Your task to perform on an android device: Go to notification settings Image 0: 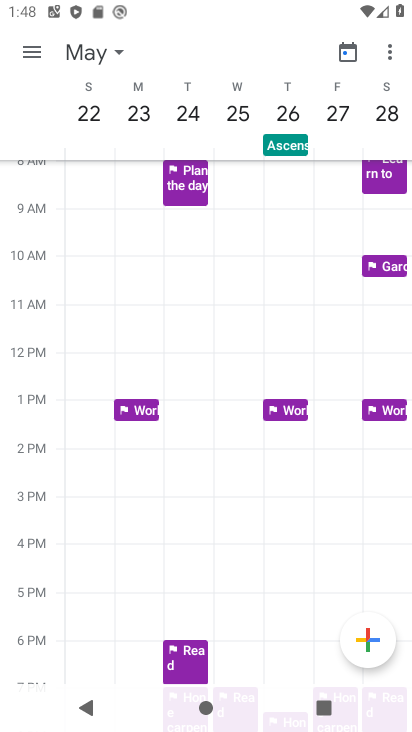
Step 0: press home button
Your task to perform on an android device: Go to notification settings Image 1: 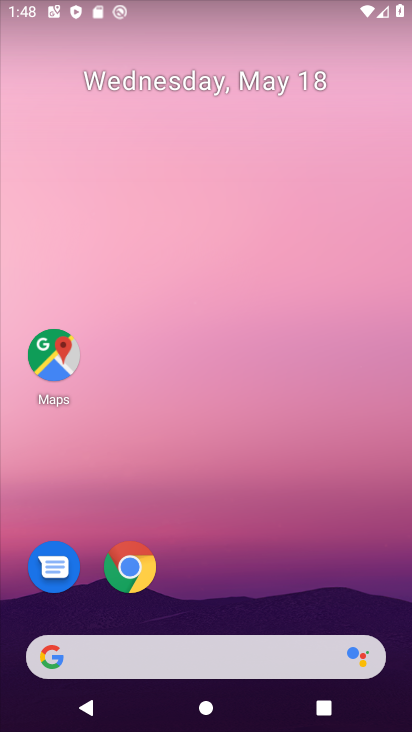
Step 1: drag from (182, 601) to (316, 137)
Your task to perform on an android device: Go to notification settings Image 2: 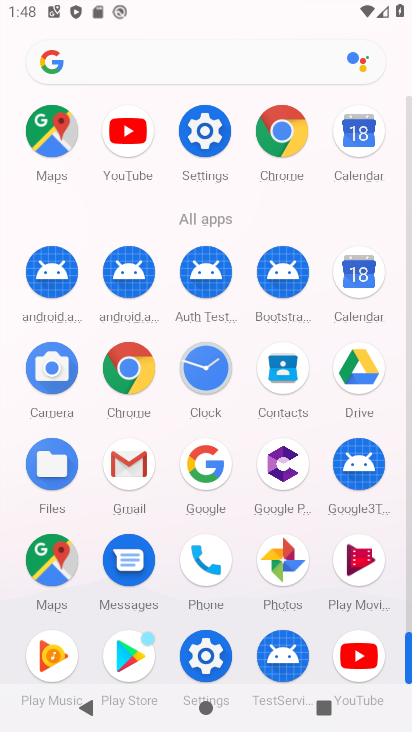
Step 2: click (210, 136)
Your task to perform on an android device: Go to notification settings Image 3: 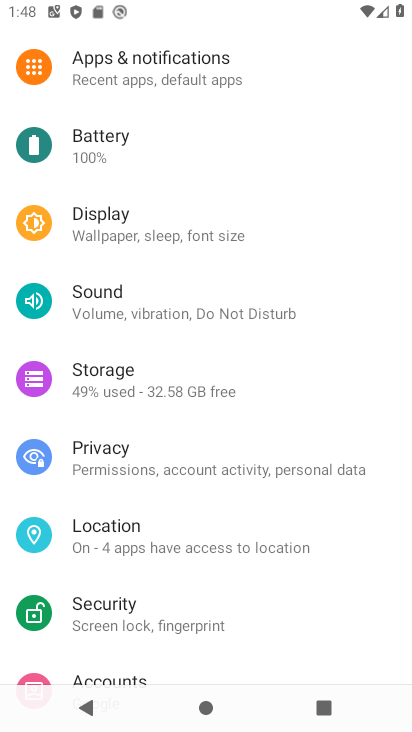
Step 3: click (189, 72)
Your task to perform on an android device: Go to notification settings Image 4: 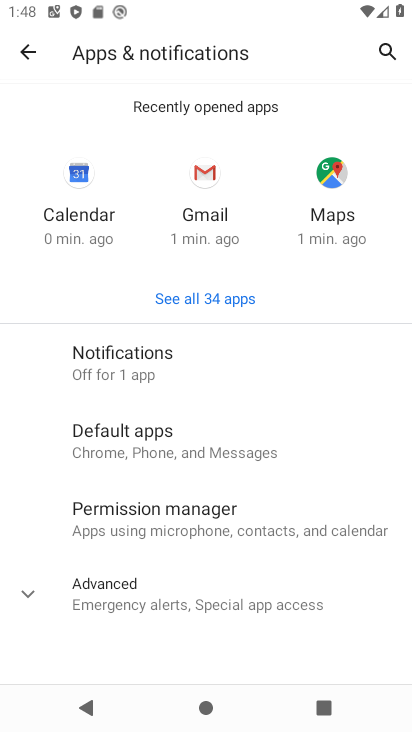
Step 4: click (126, 370)
Your task to perform on an android device: Go to notification settings Image 5: 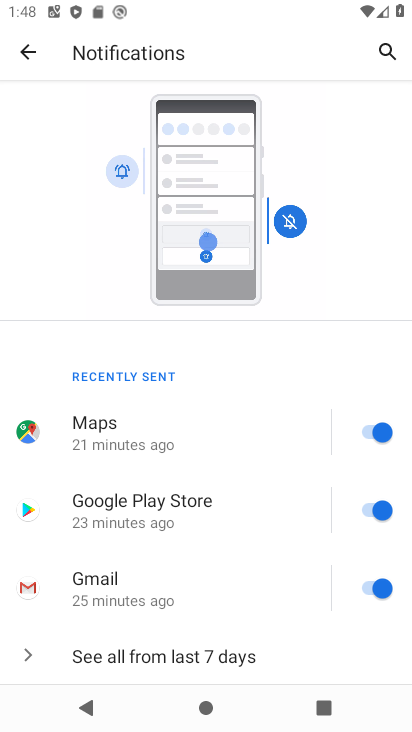
Step 5: task complete